Your task to perform on an android device: toggle javascript in the chrome app Image 0: 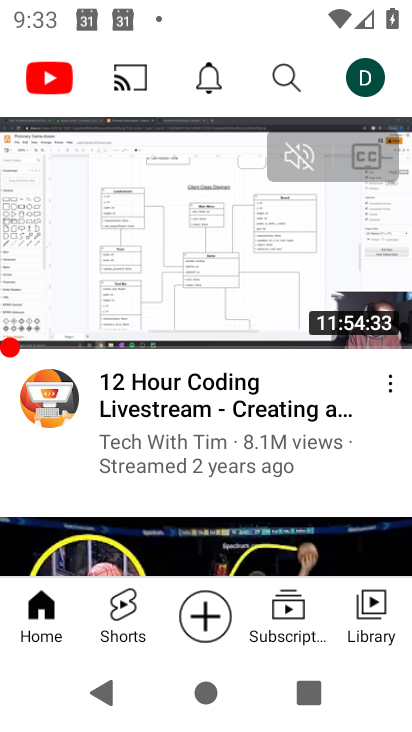
Step 0: press home button
Your task to perform on an android device: toggle javascript in the chrome app Image 1: 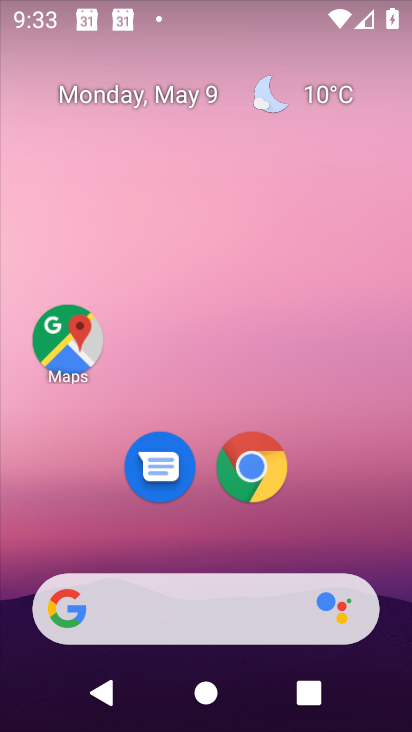
Step 1: click (240, 489)
Your task to perform on an android device: toggle javascript in the chrome app Image 2: 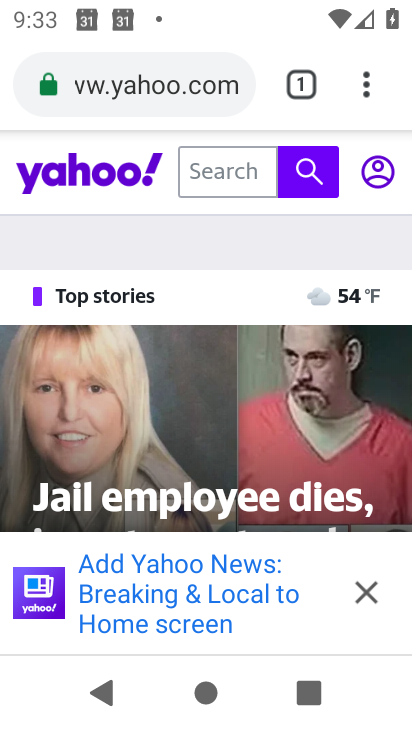
Step 2: click (370, 79)
Your task to perform on an android device: toggle javascript in the chrome app Image 3: 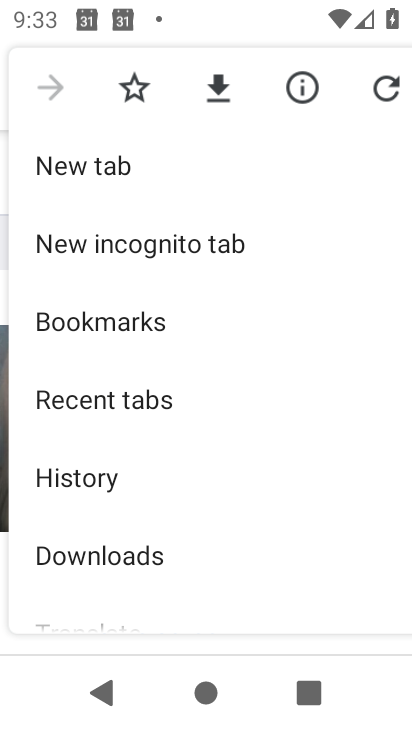
Step 3: drag from (257, 492) to (276, 117)
Your task to perform on an android device: toggle javascript in the chrome app Image 4: 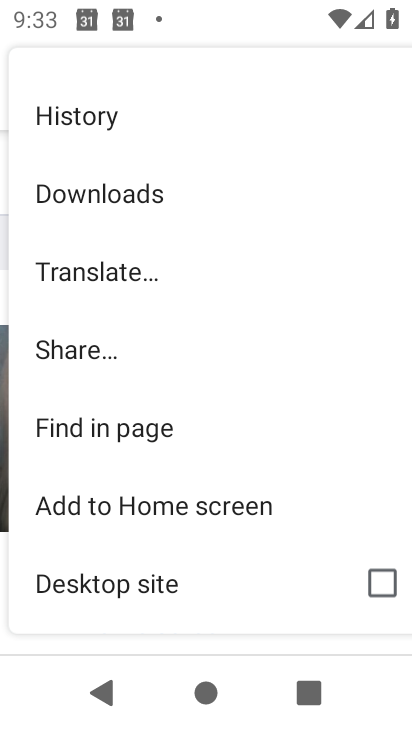
Step 4: drag from (206, 540) to (228, 108)
Your task to perform on an android device: toggle javascript in the chrome app Image 5: 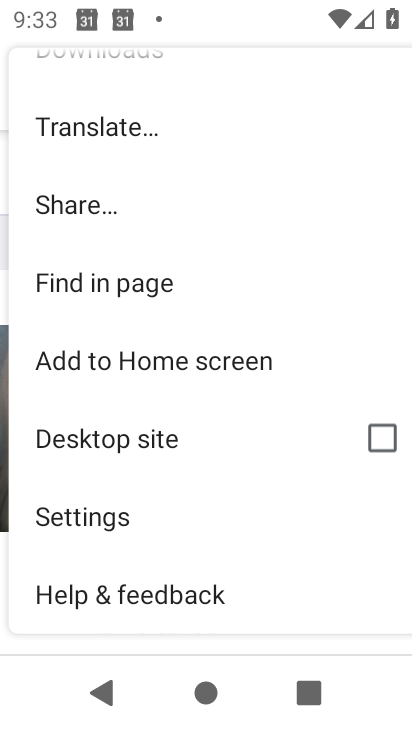
Step 5: click (95, 521)
Your task to perform on an android device: toggle javascript in the chrome app Image 6: 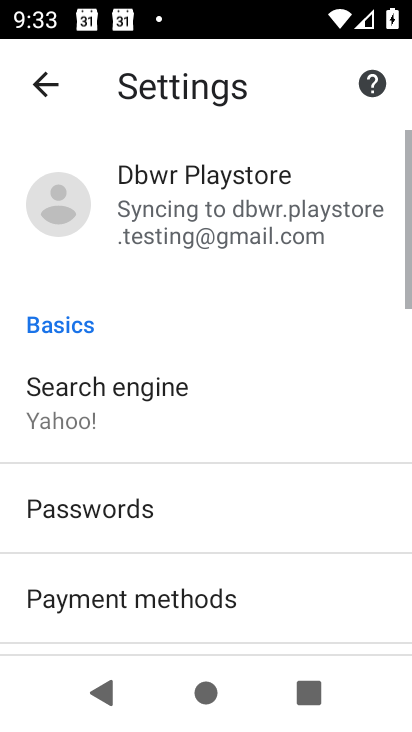
Step 6: drag from (236, 593) to (250, 153)
Your task to perform on an android device: toggle javascript in the chrome app Image 7: 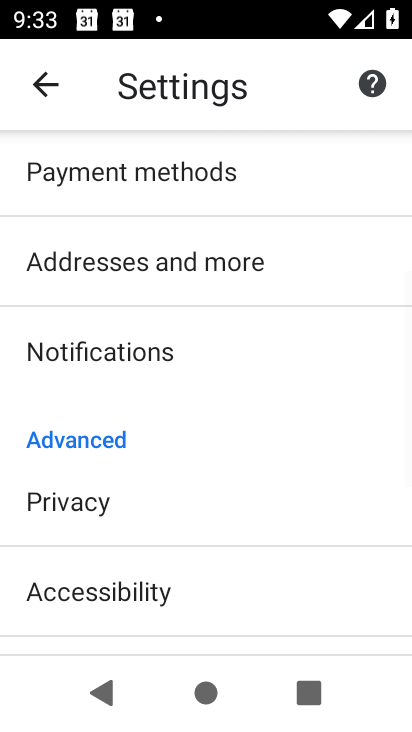
Step 7: drag from (222, 532) to (245, 103)
Your task to perform on an android device: toggle javascript in the chrome app Image 8: 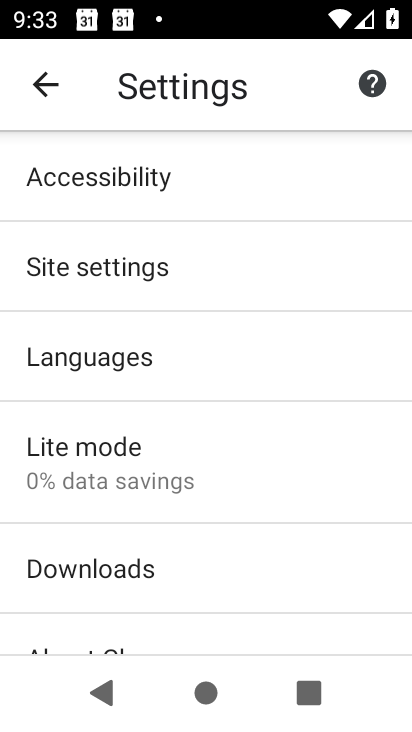
Step 8: click (89, 279)
Your task to perform on an android device: toggle javascript in the chrome app Image 9: 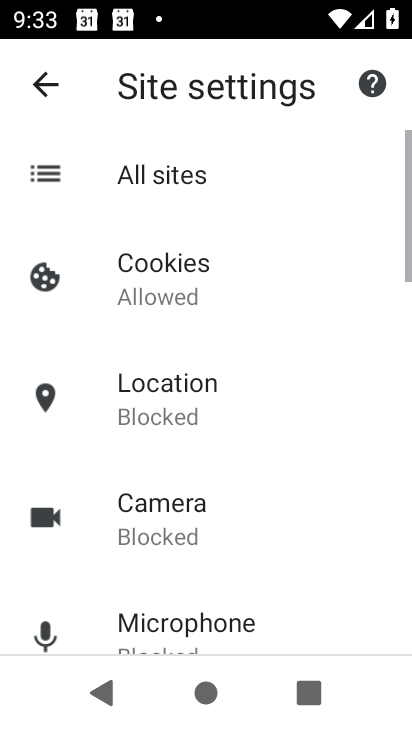
Step 9: drag from (266, 563) to (277, 247)
Your task to perform on an android device: toggle javascript in the chrome app Image 10: 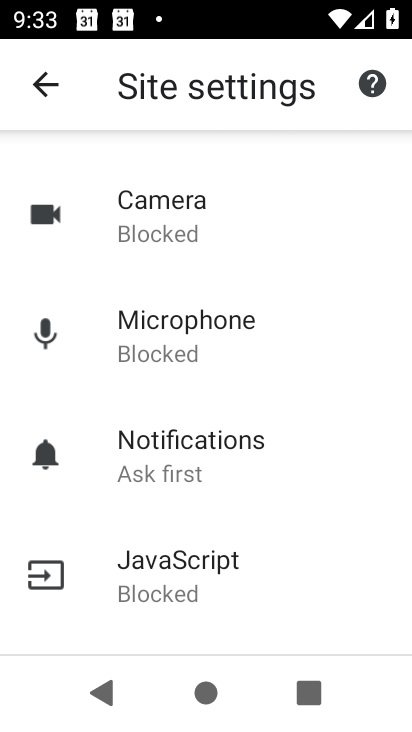
Step 10: click (167, 563)
Your task to perform on an android device: toggle javascript in the chrome app Image 11: 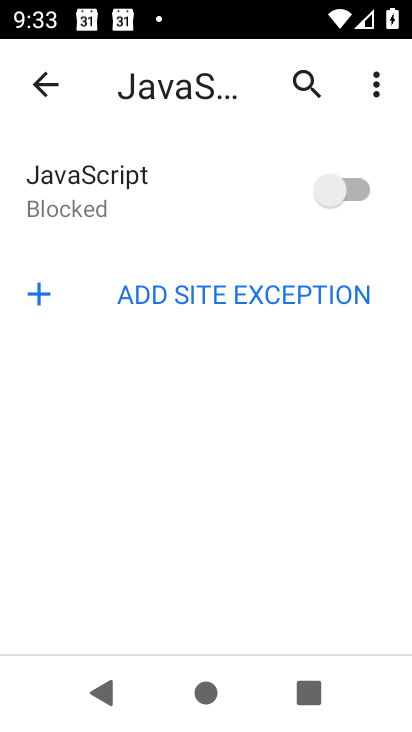
Step 11: click (318, 199)
Your task to perform on an android device: toggle javascript in the chrome app Image 12: 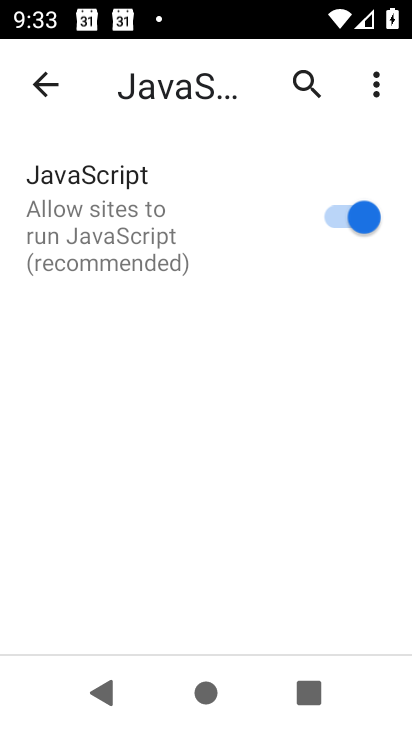
Step 12: task complete